Your task to perform on an android device: create a new album in the google photos Image 0: 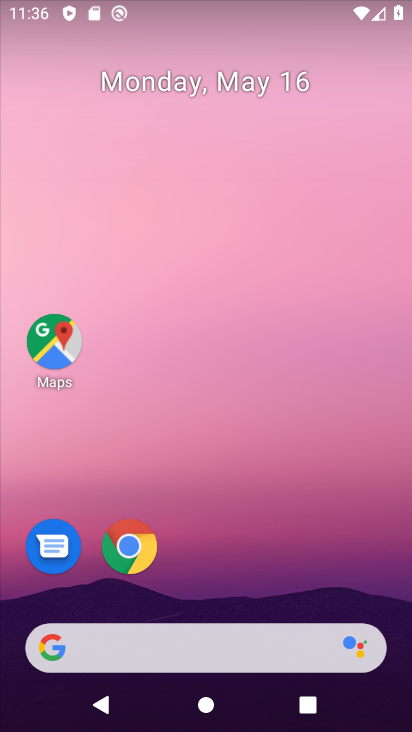
Step 0: drag from (161, 622) to (269, 156)
Your task to perform on an android device: create a new album in the google photos Image 1: 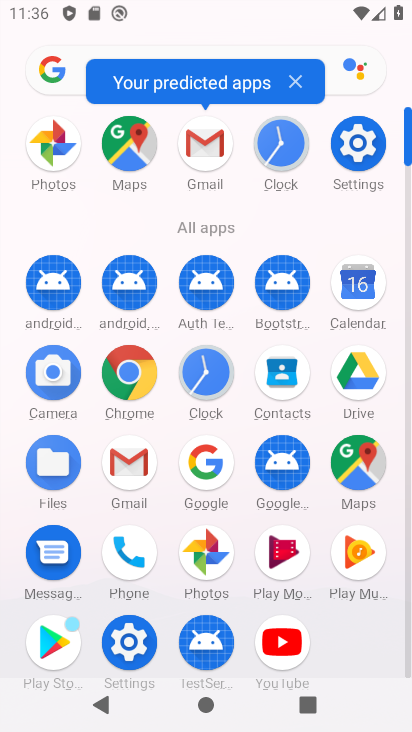
Step 1: click (211, 568)
Your task to perform on an android device: create a new album in the google photos Image 2: 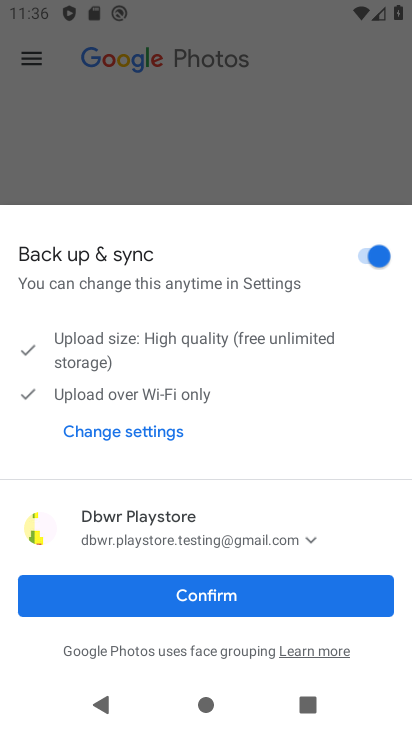
Step 2: click (252, 603)
Your task to perform on an android device: create a new album in the google photos Image 3: 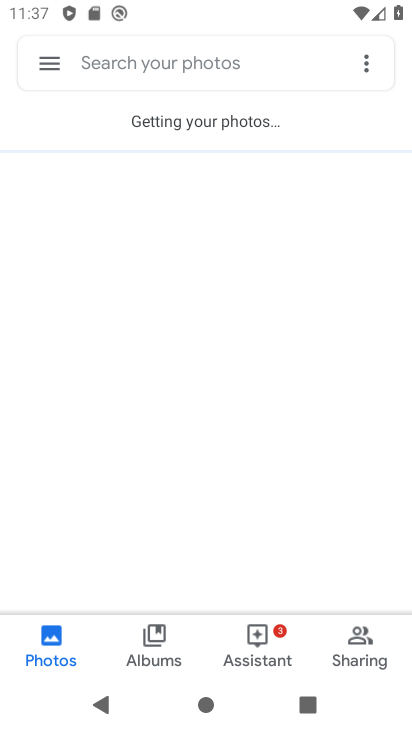
Step 3: click (367, 66)
Your task to perform on an android device: create a new album in the google photos Image 4: 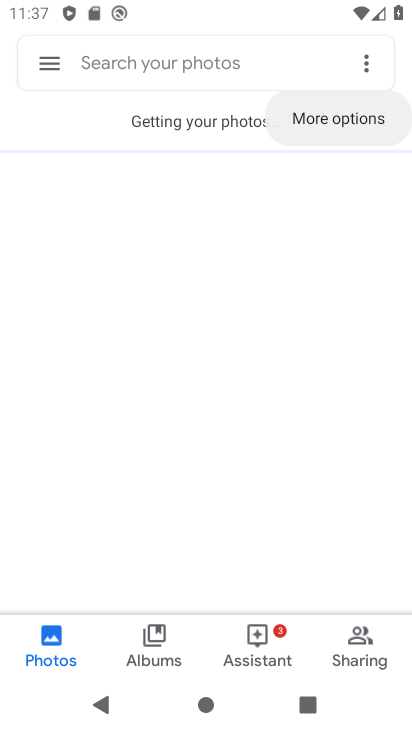
Step 4: click (364, 78)
Your task to perform on an android device: create a new album in the google photos Image 5: 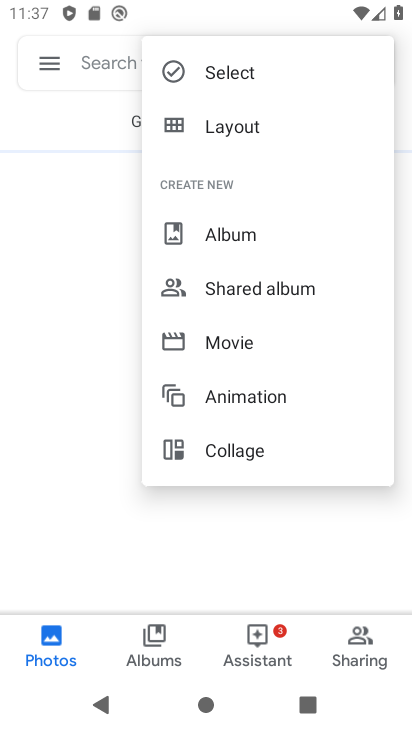
Step 5: click (321, 237)
Your task to perform on an android device: create a new album in the google photos Image 6: 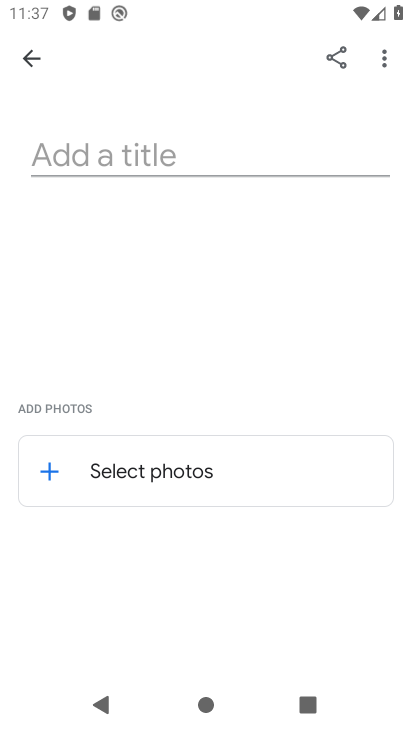
Step 6: click (221, 479)
Your task to perform on an android device: create a new album in the google photos Image 7: 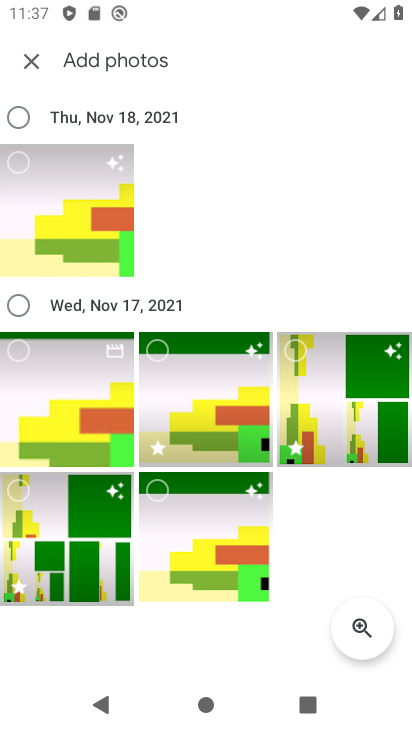
Step 7: click (16, 309)
Your task to perform on an android device: create a new album in the google photos Image 8: 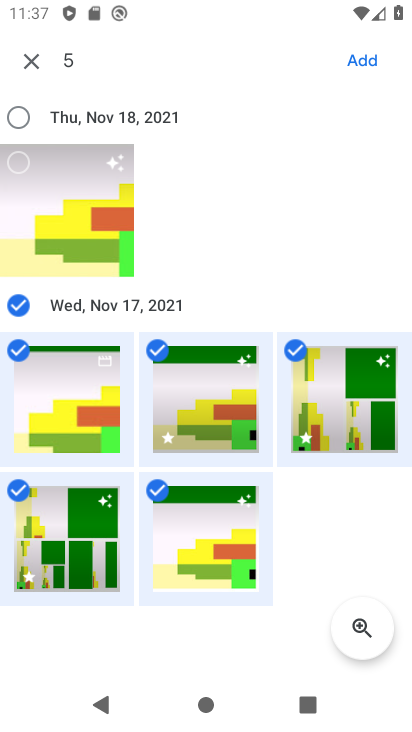
Step 8: click (9, 127)
Your task to perform on an android device: create a new album in the google photos Image 9: 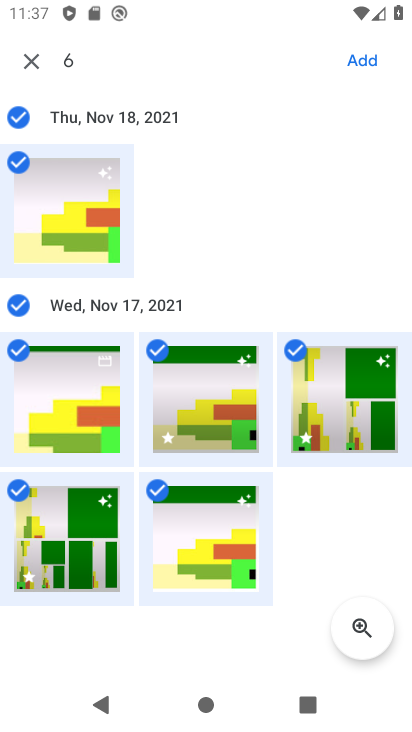
Step 9: click (381, 68)
Your task to perform on an android device: create a new album in the google photos Image 10: 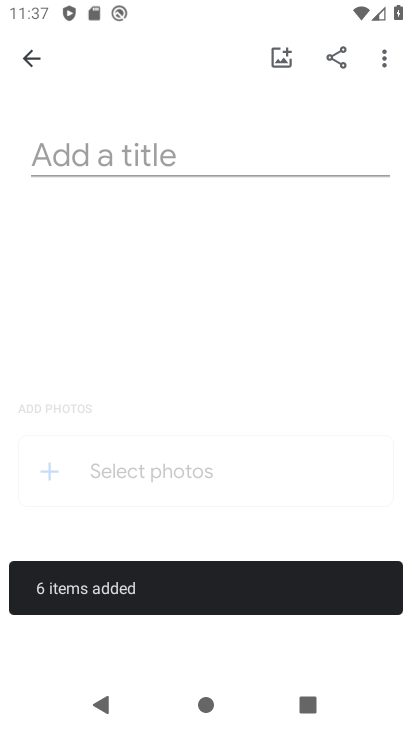
Step 10: click (219, 146)
Your task to perform on an android device: create a new album in the google photos Image 11: 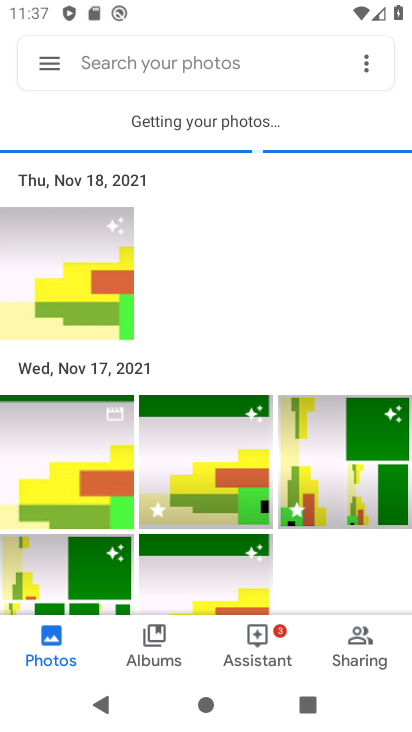
Step 11: click (378, 56)
Your task to perform on an android device: create a new album in the google photos Image 12: 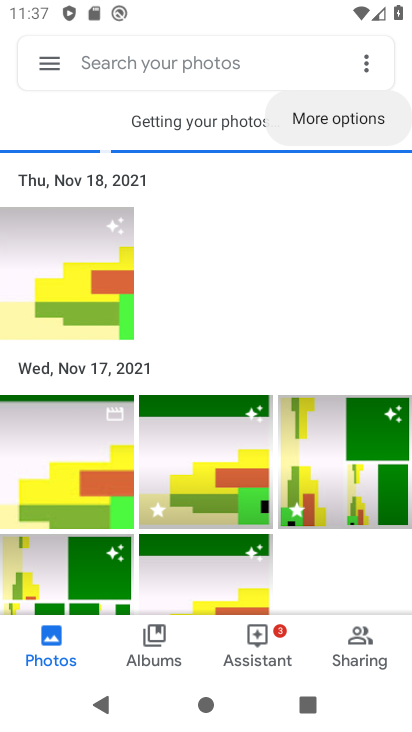
Step 12: click (374, 58)
Your task to perform on an android device: create a new album in the google photos Image 13: 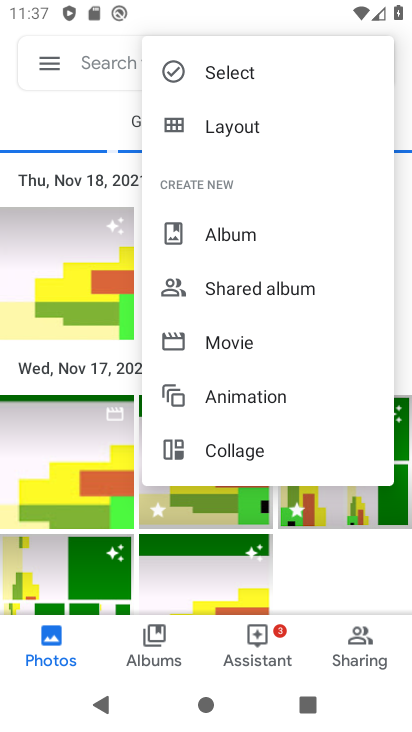
Step 13: click (271, 245)
Your task to perform on an android device: create a new album in the google photos Image 14: 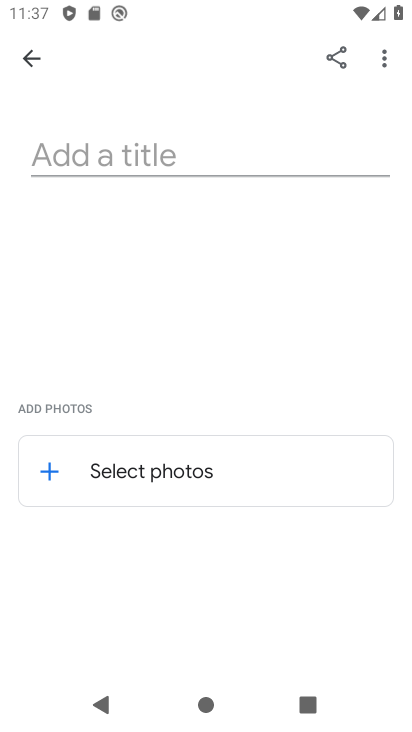
Step 14: click (101, 159)
Your task to perform on an android device: create a new album in the google photos Image 15: 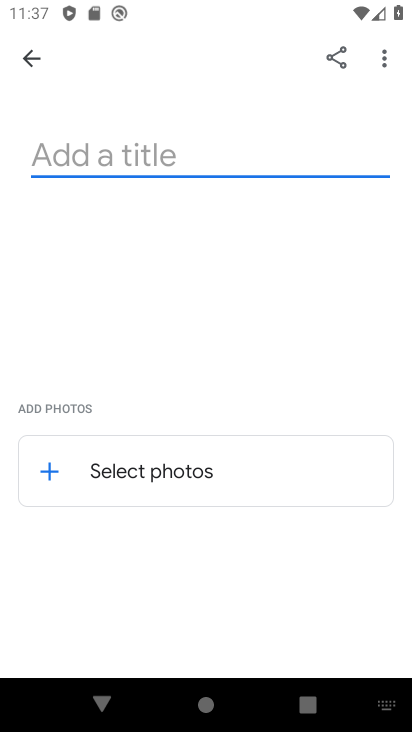
Step 15: type "kkkkkk"
Your task to perform on an android device: create a new album in the google photos Image 16: 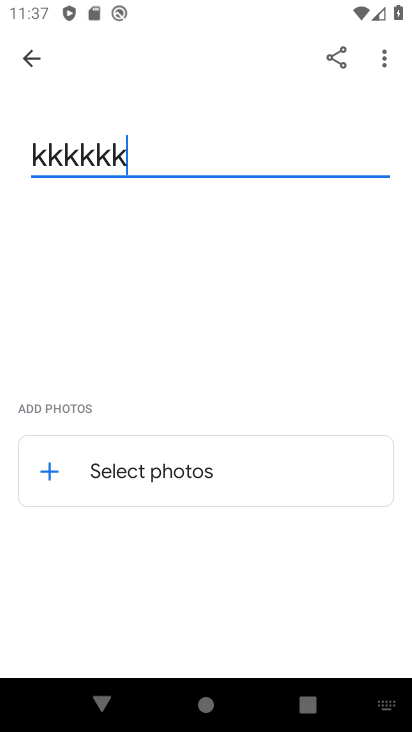
Step 16: click (273, 480)
Your task to perform on an android device: create a new album in the google photos Image 17: 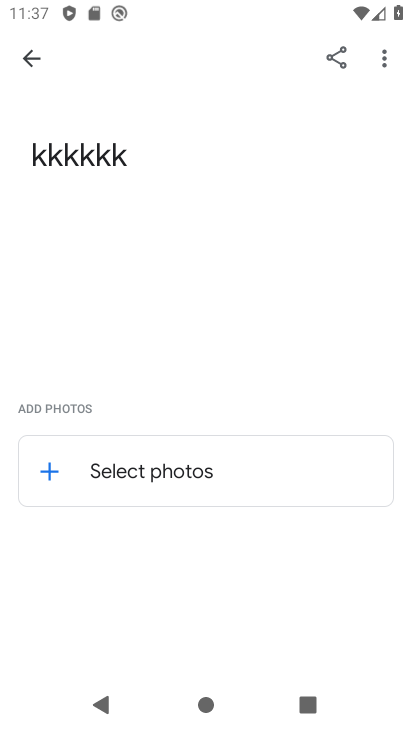
Step 17: click (131, 478)
Your task to perform on an android device: create a new album in the google photos Image 18: 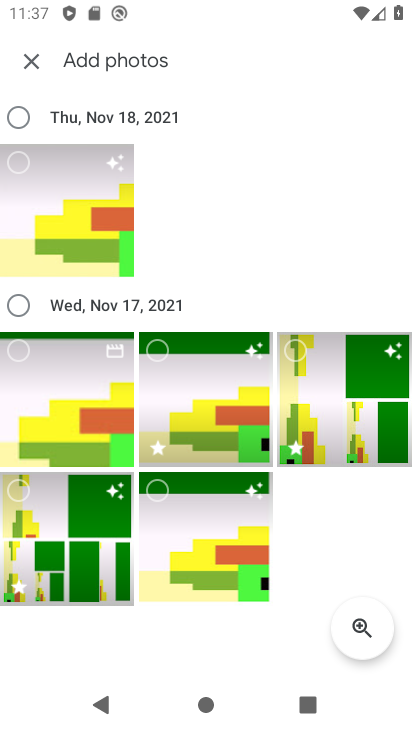
Step 18: click (21, 121)
Your task to perform on an android device: create a new album in the google photos Image 19: 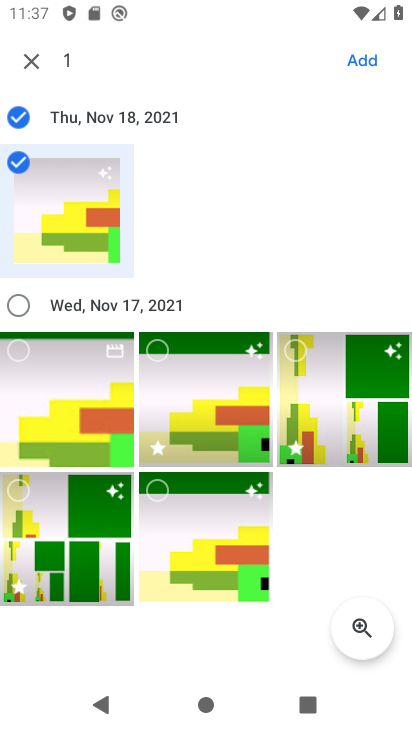
Step 19: click (15, 315)
Your task to perform on an android device: create a new album in the google photos Image 20: 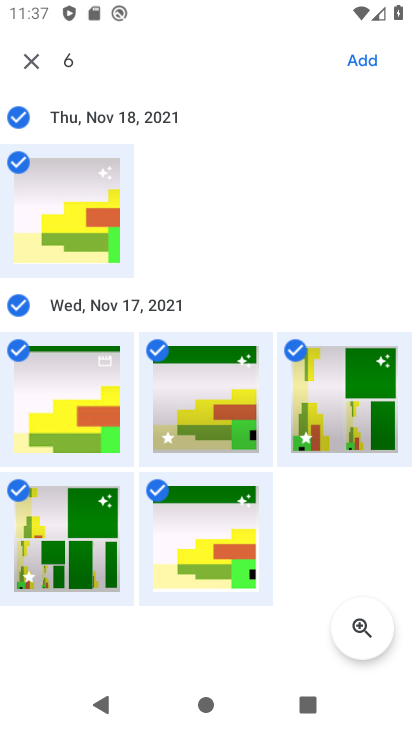
Step 20: click (377, 57)
Your task to perform on an android device: create a new album in the google photos Image 21: 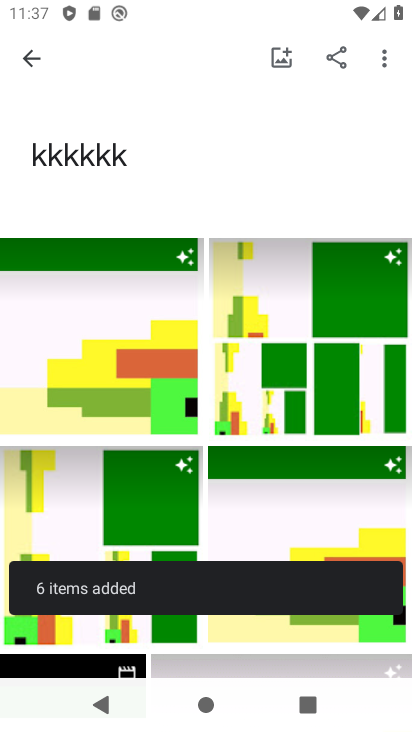
Step 21: task complete